Your task to perform on an android device: Go to internet settings Image 0: 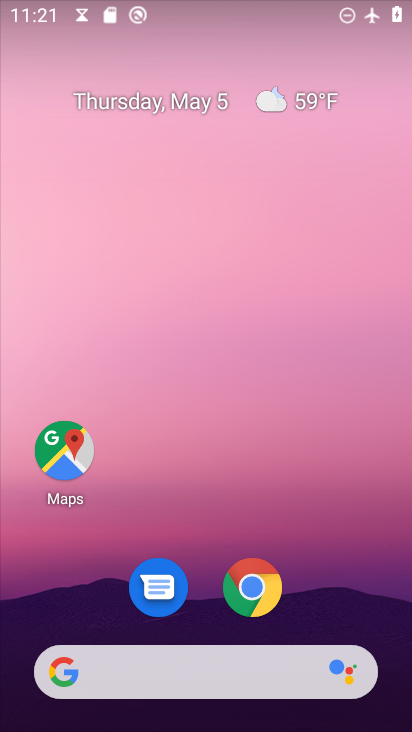
Step 0: drag from (313, 533) to (226, 3)
Your task to perform on an android device: Go to internet settings Image 1: 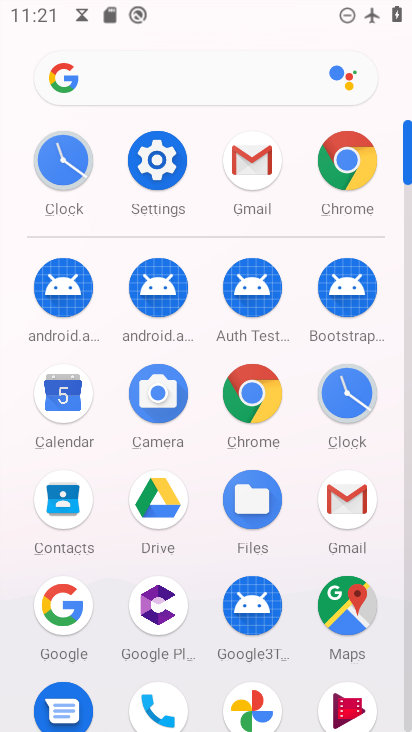
Step 1: drag from (12, 582) to (10, 213)
Your task to perform on an android device: Go to internet settings Image 2: 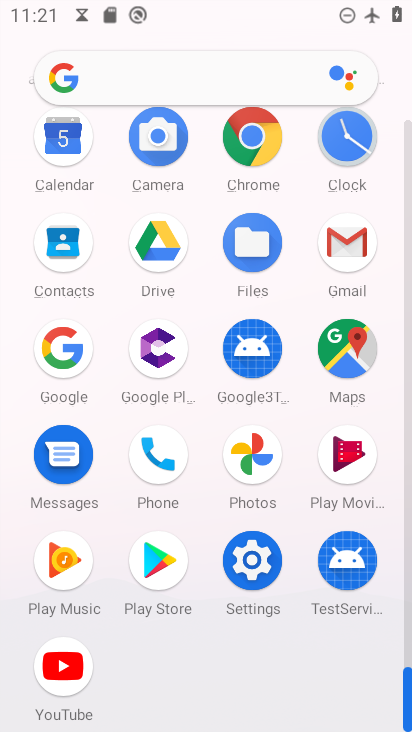
Step 2: drag from (25, 559) to (5, 307)
Your task to perform on an android device: Go to internet settings Image 3: 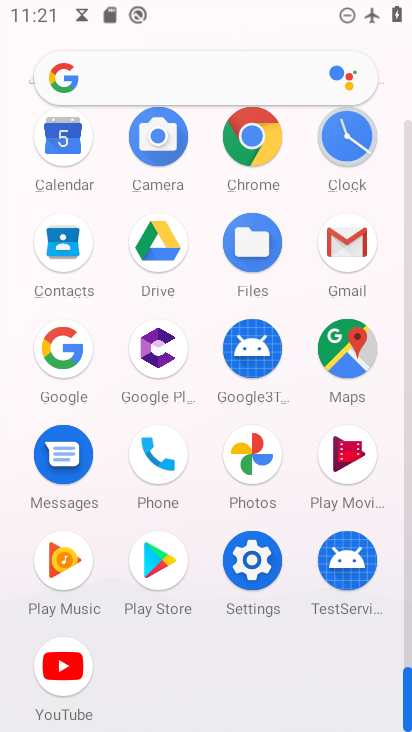
Step 3: click (250, 554)
Your task to perform on an android device: Go to internet settings Image 4: 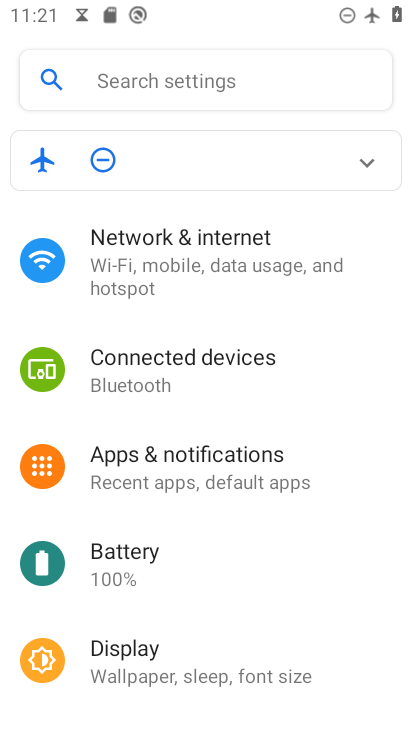
Step 4: drag from (275, 626) to (234, 155)
Your task to perform on an android device: Go to internet settings Image 5: 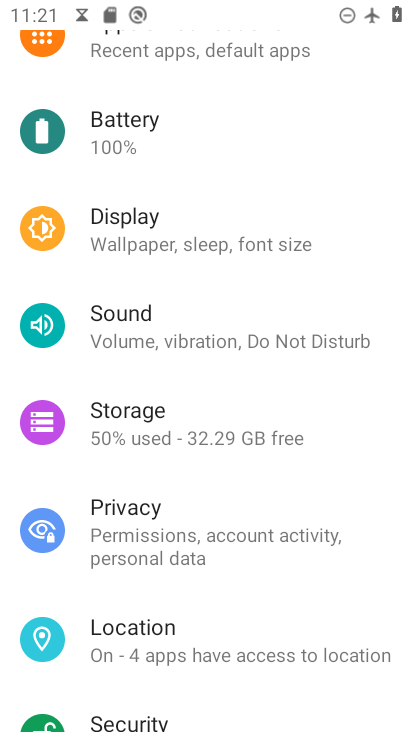
Step 5: drag from (318, 599) to (337, 55)
Your task to perform on an android device: Go to internet settings Image 6: 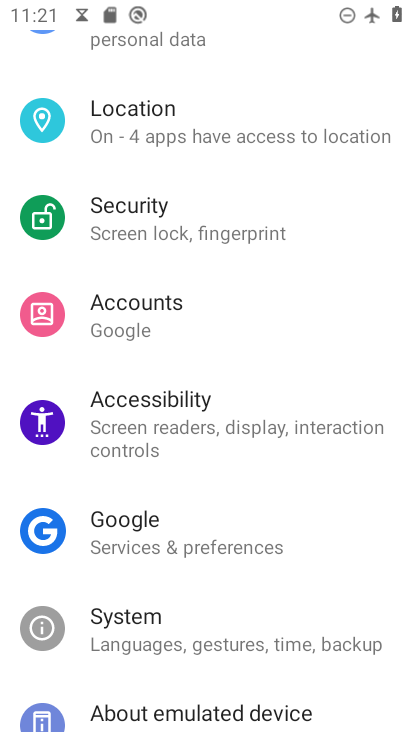
Step 6: drag from (246, 638) to (279, 105)
Your task to perform on an android device: Go to internet settings Image 7: 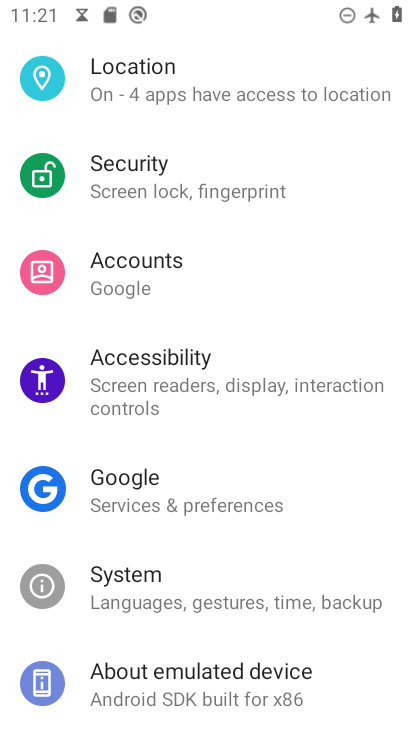
Step 7: drag from (284, 174) to (275, 535)
Your task to perform on an android device: Go to internet settings Image 8: 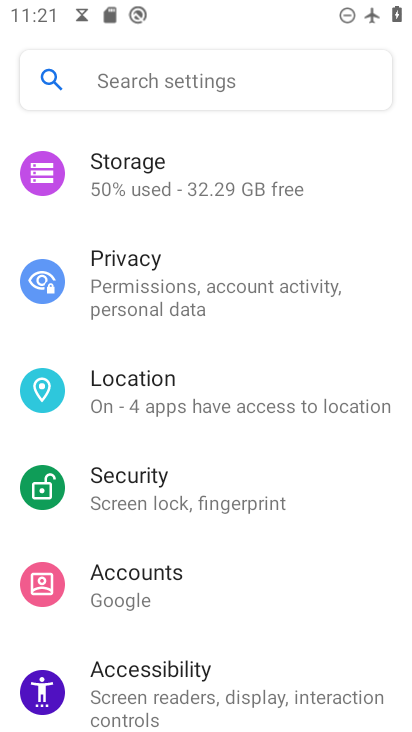
Step 8: drag from (257, 149) to (250, 571)
Your task to perform on an android device: Go to internet settings Image 9: 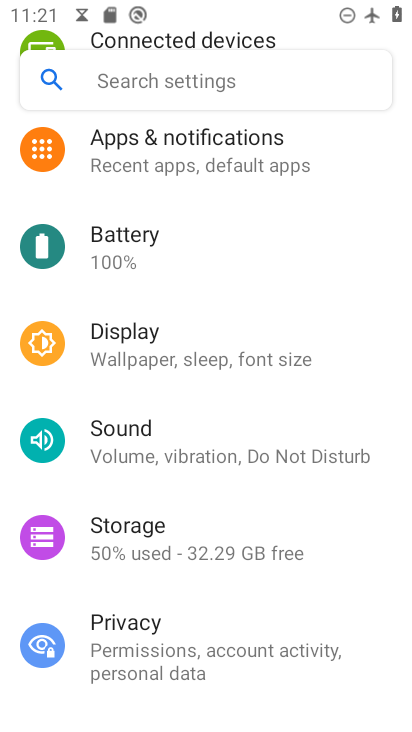
Step 9: drag from (224, 186) to (226, 614)
Your task to perform on an android device: Go to internet settings Image 10: 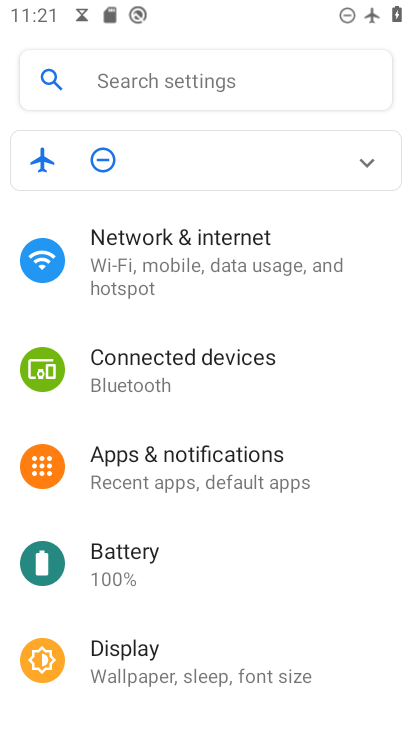
Step 10: click (199, 280)
Your task to perform on an android device: Go to internet settings Image 11: 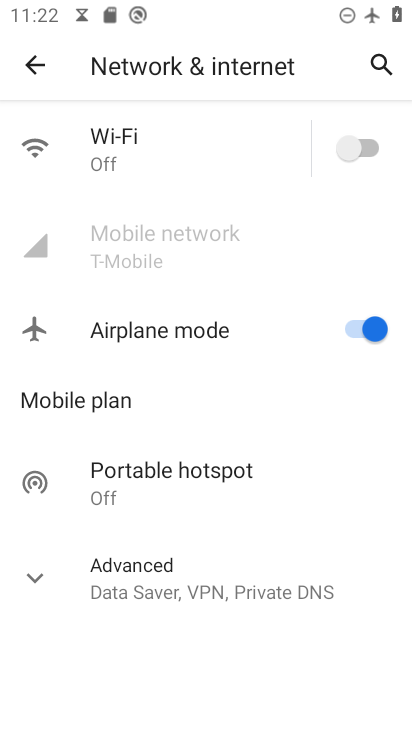
Step 11: task complete